Your task to perform on an android device: change the clock style Image 0: 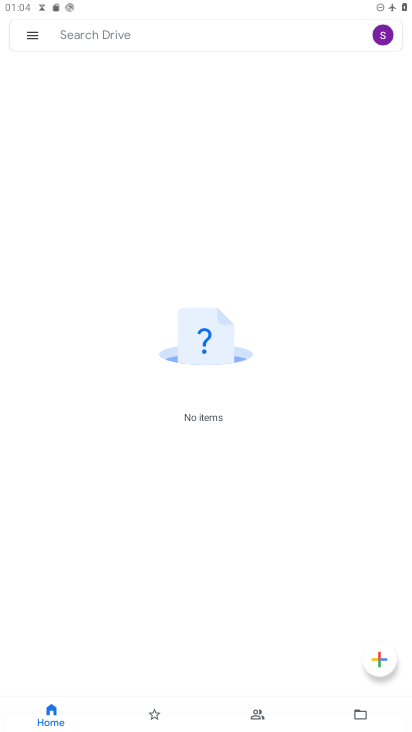
Step 0: press home button
Your task to perform on an android device: change the clock style Image 1: 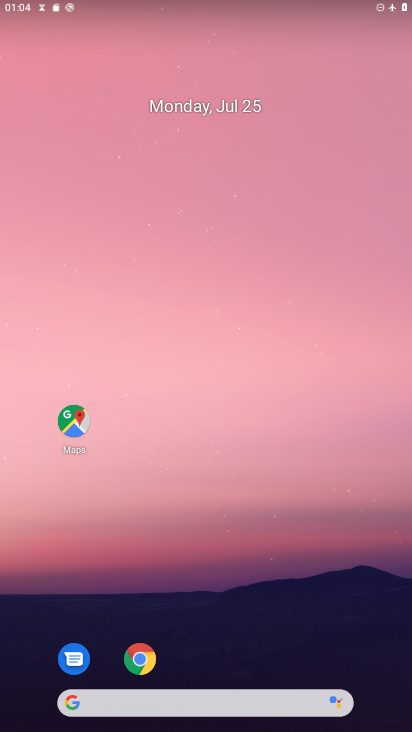
Step 1: drag from (253, 628) to (257, 231)
Your task to perform on an android device: change the clock style Image 2: 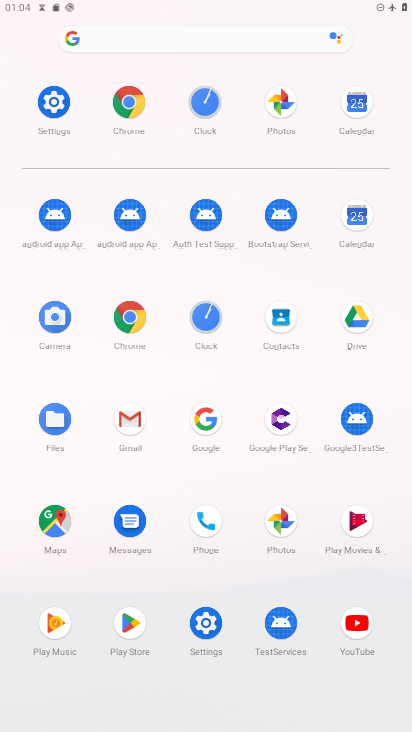
Step 2: click (209, 315)
Your task to perform on an android device: change the clock style Image 3: 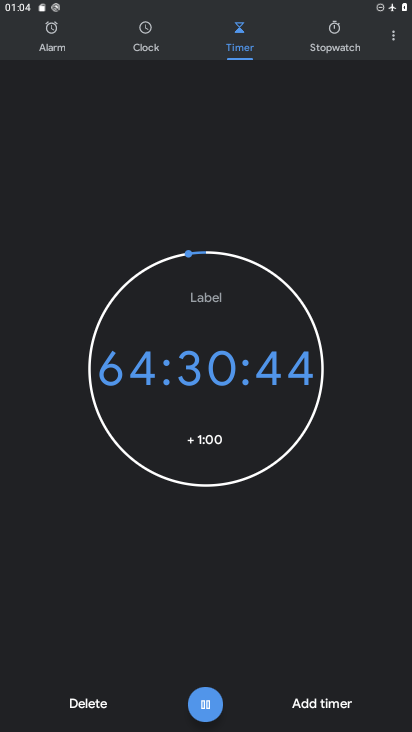
Step 3: click (399, 34)
Your task to perform on an android device: change the clock style Image 4: 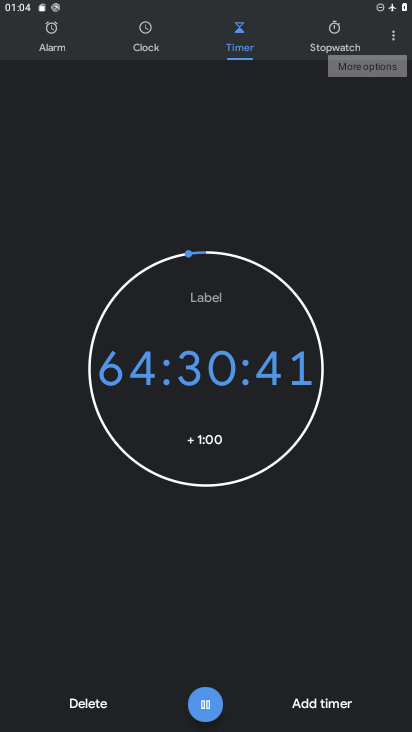
Step 4: click (391, 43)
Your task to perform on an android device: change the clock style Image 5: 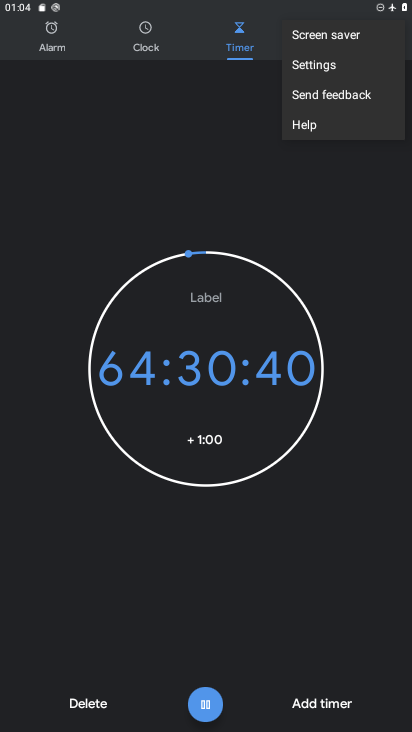
Step 5: click (323, 71)
Your task to perform on an android device: change the clock style Image 6: 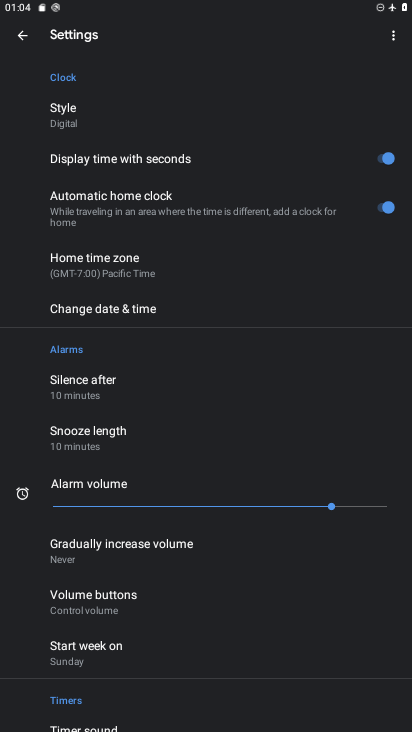
Step 6: click (67, 101)
Your task to perform on an android device: change the clock style Image 7: 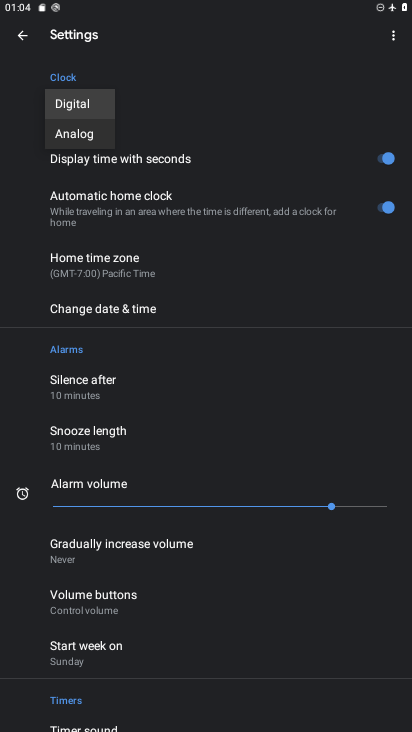
Step 7: click (71, 137)
Your task to perform on an android device: change the clock style Image 8: 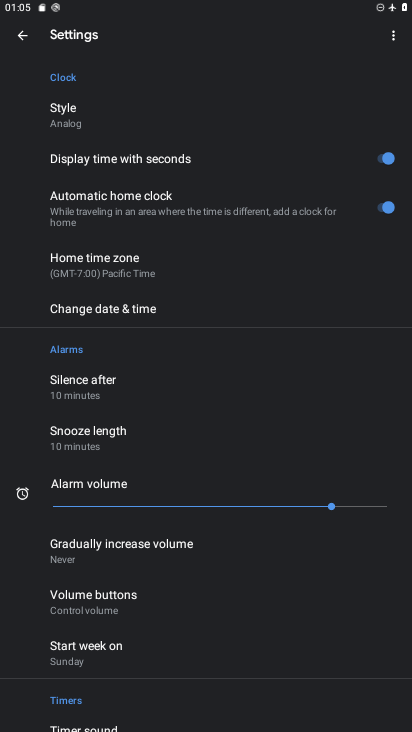
Step 8: task complete